Your task to perform on an android device: turn on improve location accuracy Image 0: 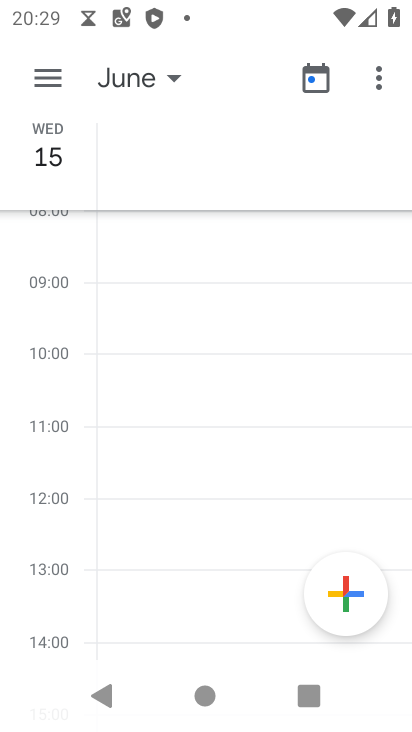
Step 0: press home button
Your task to perform on an android device: turn on improve location accuracy Image 1: 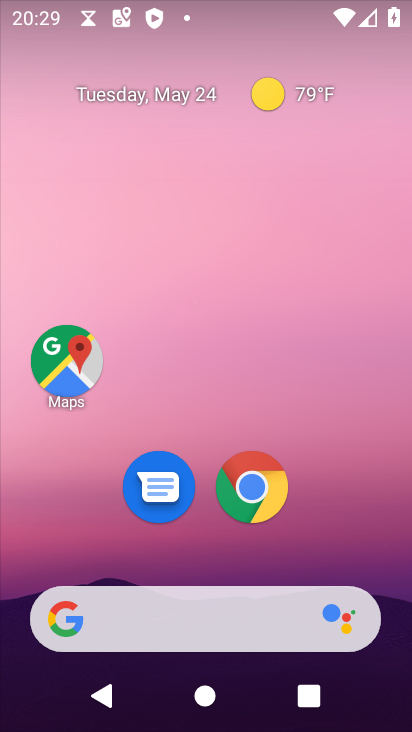
Step 1: drag from (78, 486) to (257, 126)
Your task to perform on an android device: turn on improve location accuracy Image 2: 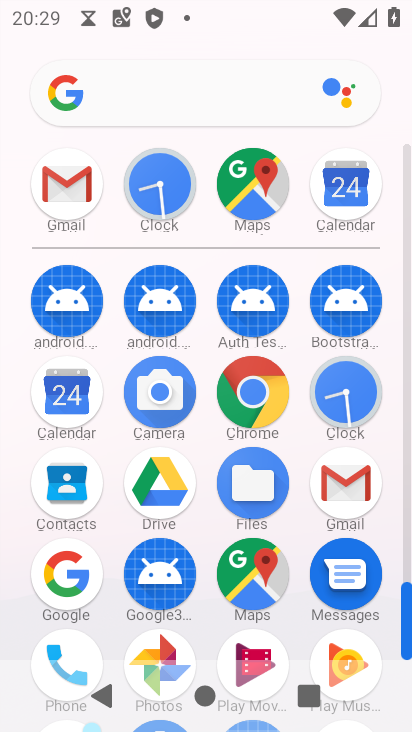
Step 2: drag from (51, 537) to (276, 142)
Your task to perform on an android device: turn on improve location accuracy Image 3: 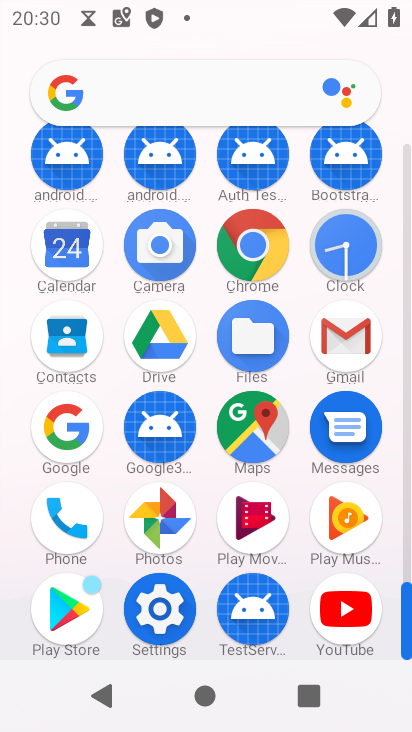
Step 3: click (161, 605)
Your task to perform on an android device: turn on improve location accuracy Image 4: 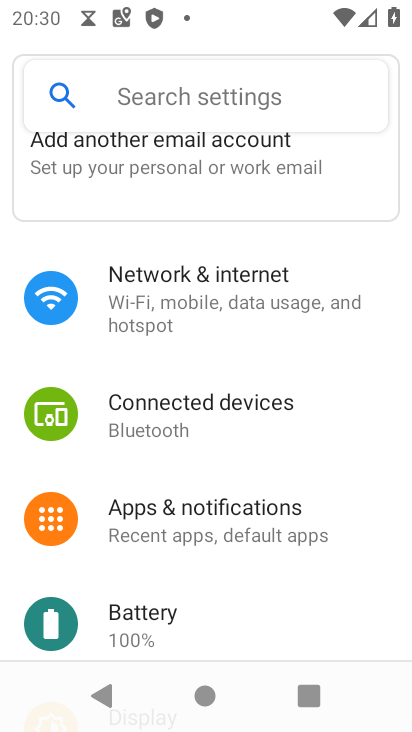
Step 4: drag from (22, 531) to (183, 246)
Your task to perform on an android device: turn on improve location accuracy Image 5: 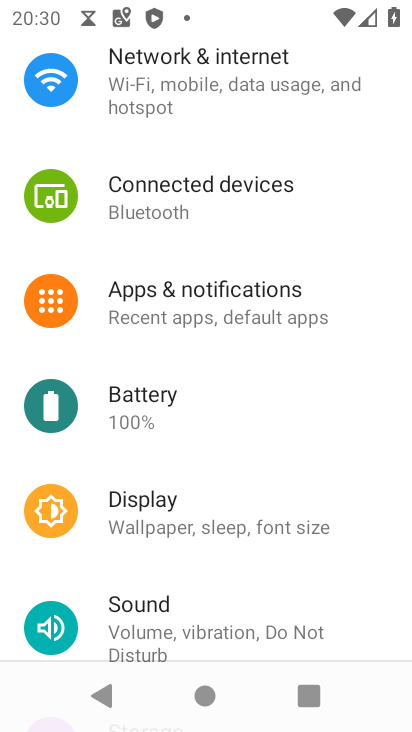
Step 5: drag from (21, 430) to (137, 191)
Your task to perform on an android device: turn on improve location accuracy Image 6: 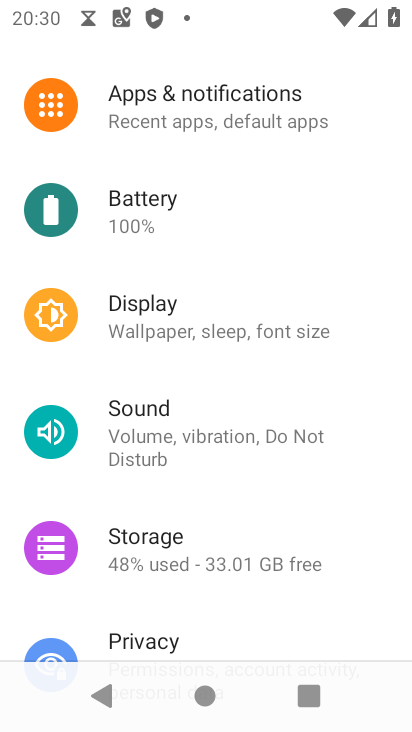
Step 6: drag from (21, 543) to (160, 255)
Your task to perform on an android device: turn on improve location accuracy Image 7: 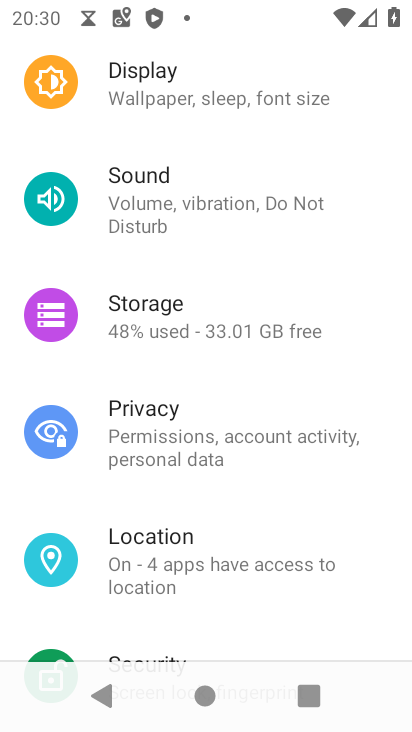
Step 7: click (129, 570)
Your task to perform on an android device: turn on improve location accuracy Image 8: 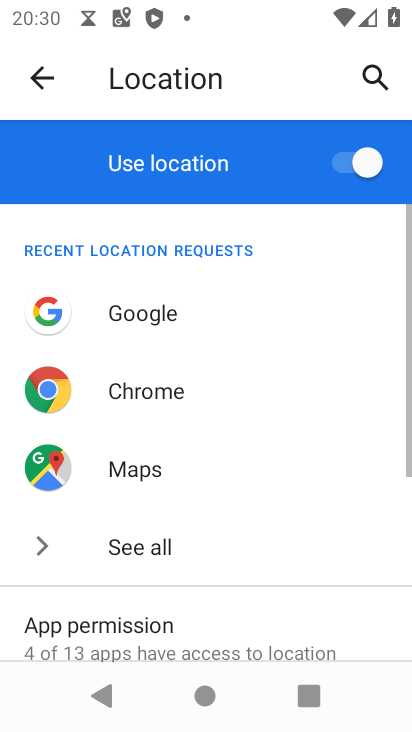
Step 8: drag from (7, 637) to (211, 182)
Your task to perform on an android device: turn on improve location accuracy Image 9: 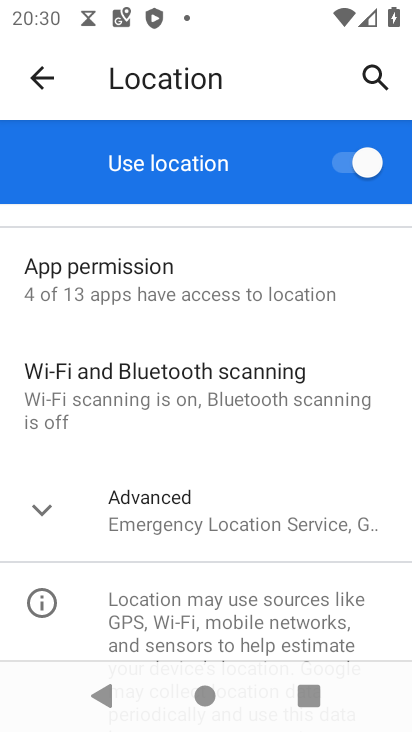
Step 9: click (210, 529)
Your task to perform on an android device: turn on improve location accuracy Image 10: 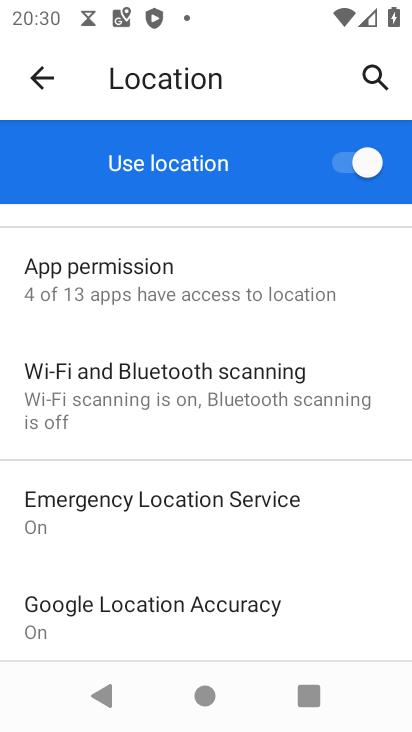
Step 10: drag from (18, 523) to (177, 211)
Your task to perform on an android device: turn on improve location accuracy Image 11: 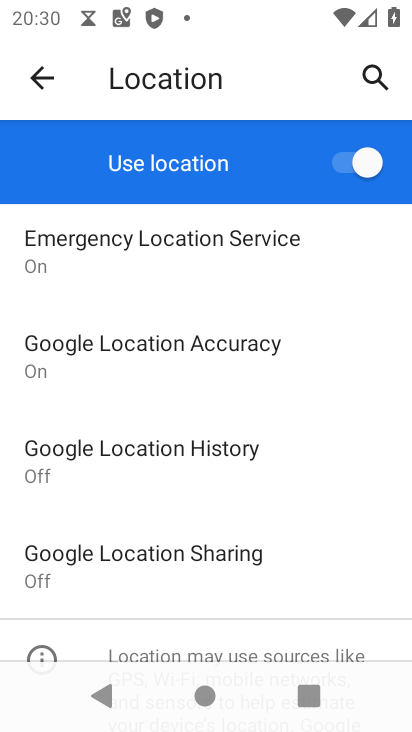
Step 11: click (157, 364)
Your task to perform on an android device: turn on improve location accuracy Image 12: 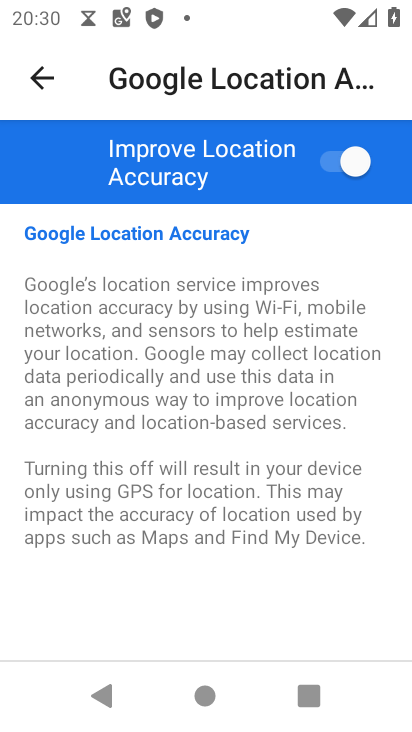
Step 12: task complete